Your task to perform on an android device: turn off data saver in the chrome app Image 0: 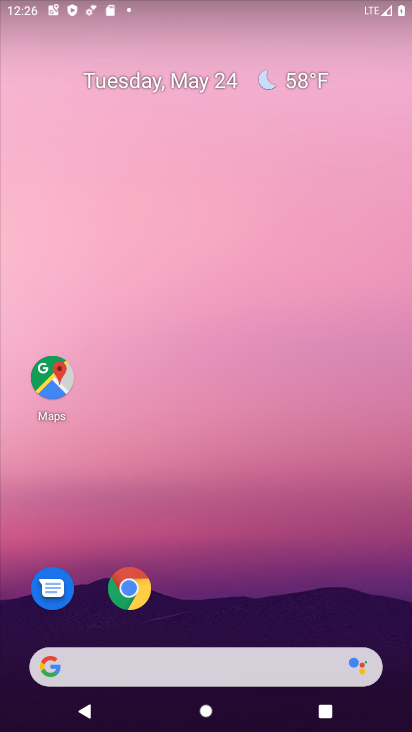
Step 0: click (129, 589)
Your task to perform on an android device: turn off data saver in the chrome app Image 1: 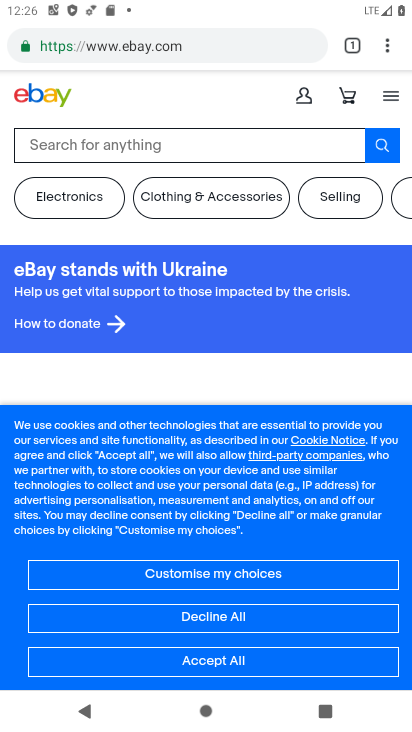
Step 1: click (385, 48)
Your task to perform on an android device: turn off data saver in the chrome app Image 2: 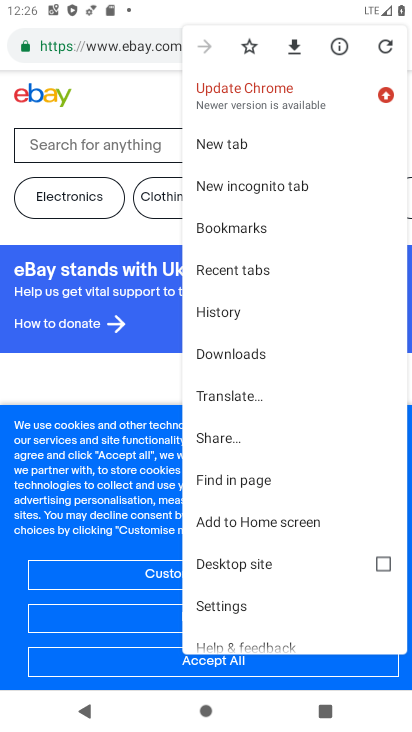
Step 2: click (239, 611)
Your task to perform on an android device: turn off data saver in the chrome app Image 3: 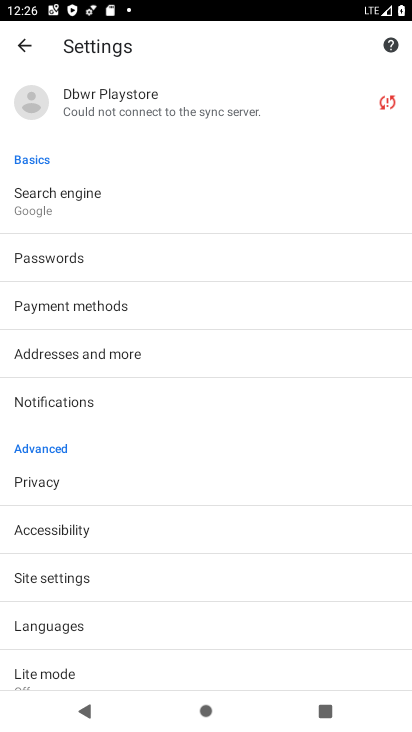
Step 3: click (47, 674)
Your task to perform on an android device: turn off data saver in the chrome app Image 4: 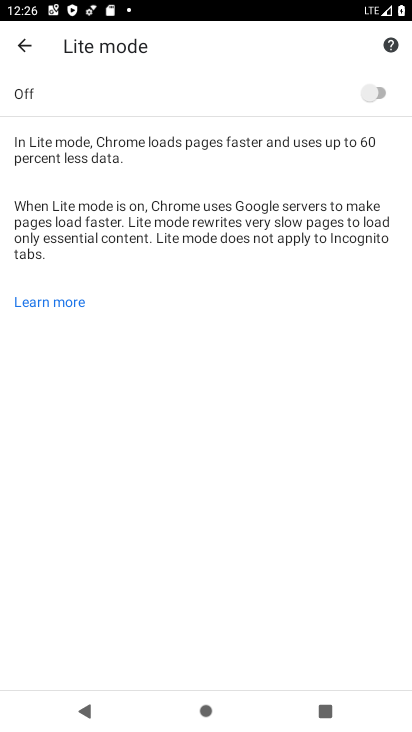
Step 4: task complete